Your task to perform on an android device: When is my next meeting? Image 0: 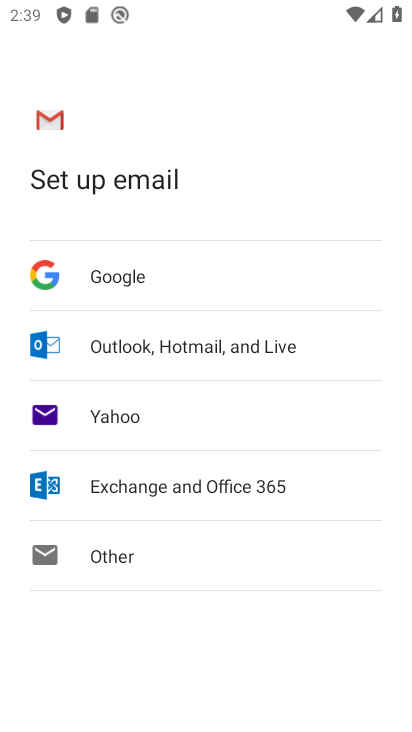
Step 0: press home button
Your task to perform on an android device: When is my next meeting? Image 1: 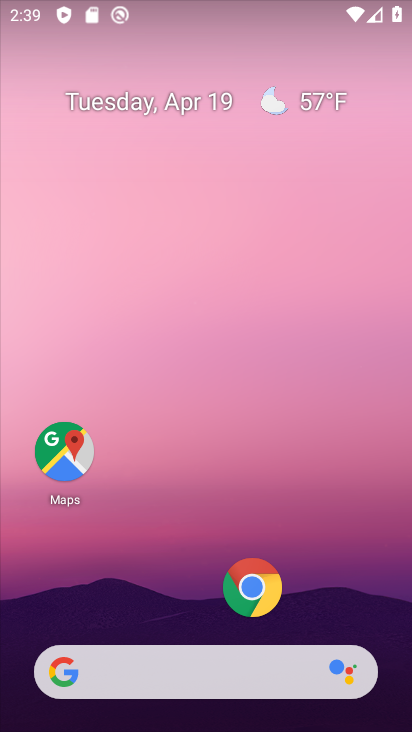
Step 1: drag from (146, 615) to (322, 51)
Your task to perform on an android device: When is my next meeting? Image 2: 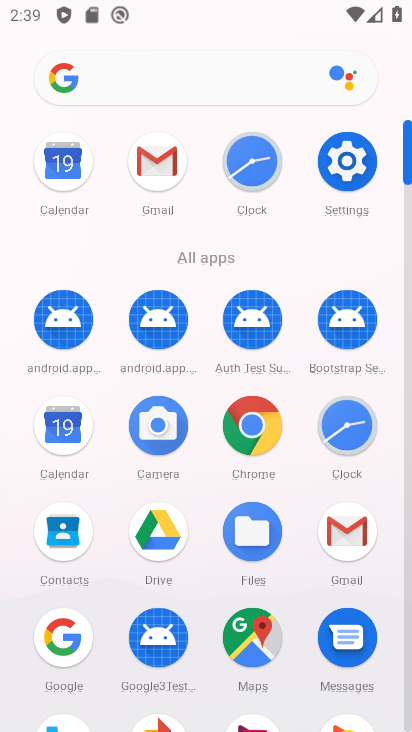
Step 2: click (65, 443)
Your task to perform on an android device: When is my next meeting? Image 3: 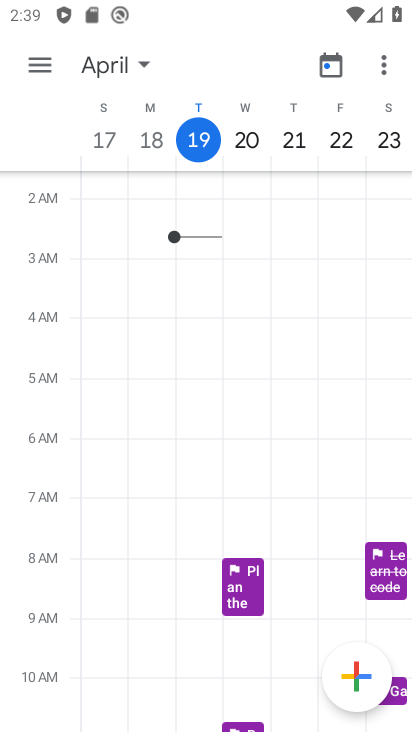
Step 3: click (327, 68)
Your task to perform on an android device: When is my next meeting? Image 4: 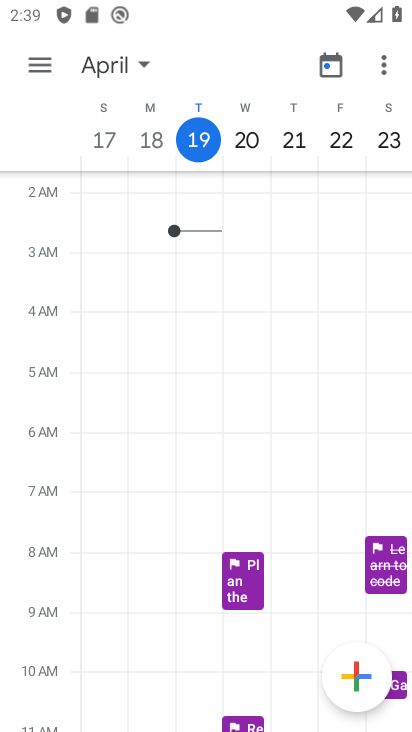
Step 4: click (327, 68)
Your task to perform on an android device: When is my next meeting? Image 5: 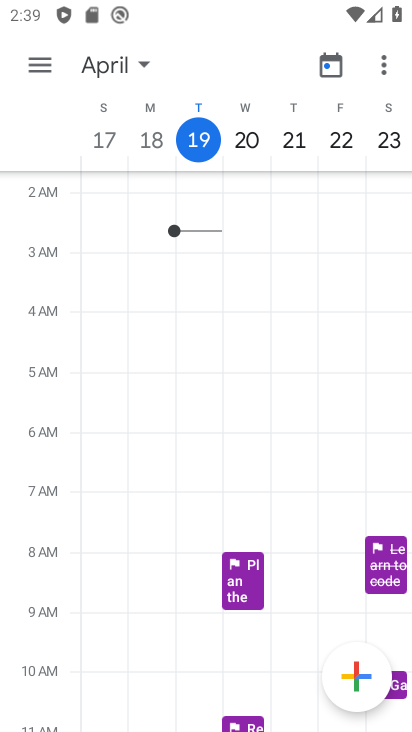
Step 5: click (378, 61)
Your task to perform on an android device: When is my next meeting? Image 6: 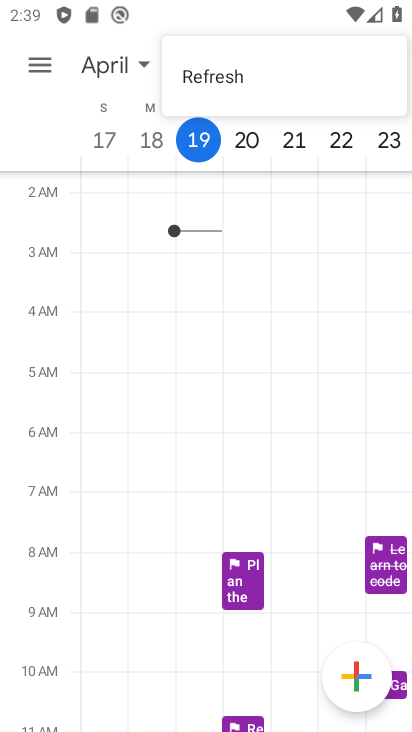
Step 6: click (212, 206)
Your task to perform on an android device: When is my next meeting? Image 7: 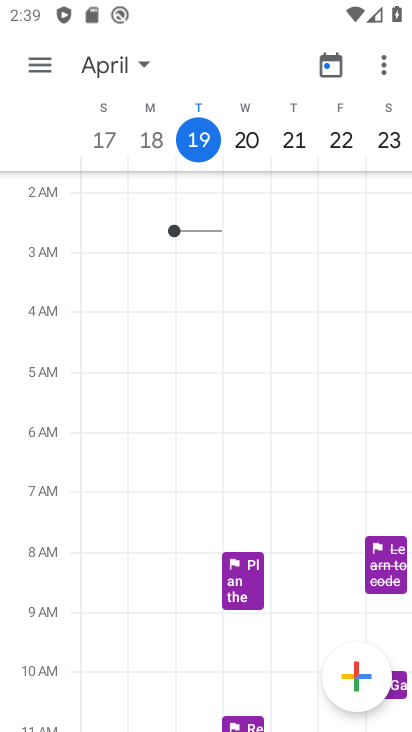
Step 7: click (122, 64)
Your task to perform on an android device: When is my next meeting? Image 8: 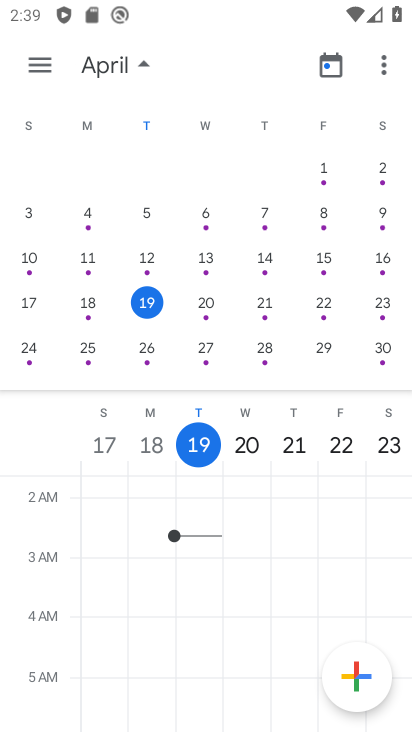
Step 8: click (32, 59)
Your task to perform on an android device: When is my next meeting? Image 9: 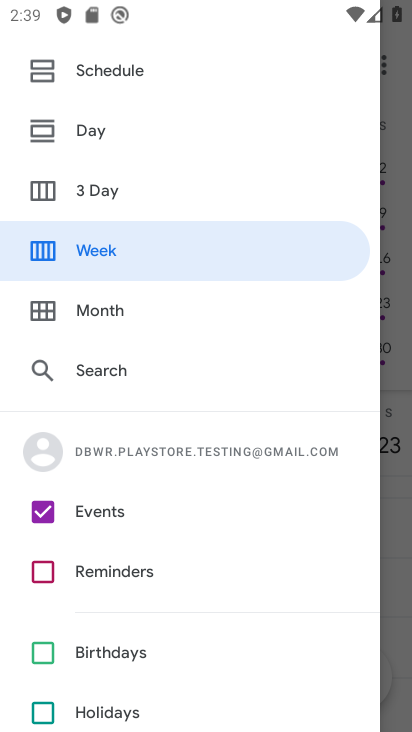
Step 9: click (120, 367)
Your task to perform on an android device: When is my next meeting? Image 10: 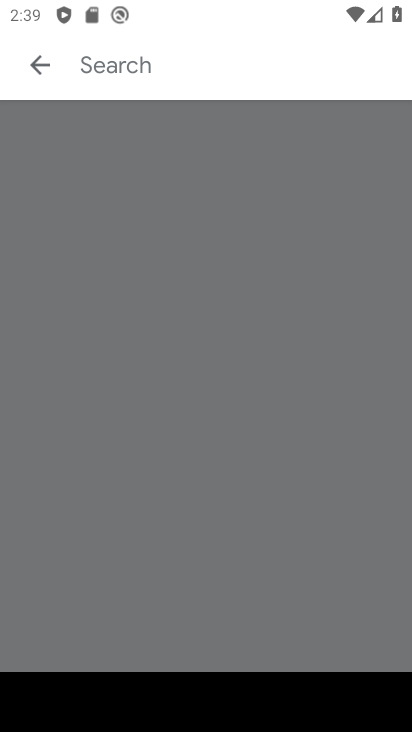
Step 10: type "meet"
Your task to perform on an android device: When is my next meeting? Image 11: 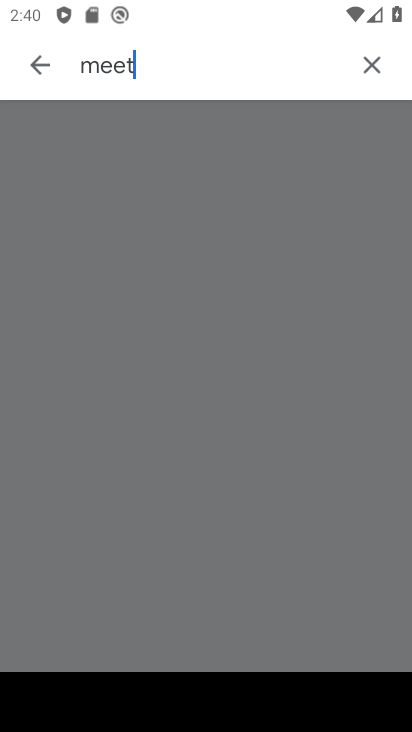
Step 11: task complete